Your task to perform on an android device: Go to location settings Image 0: 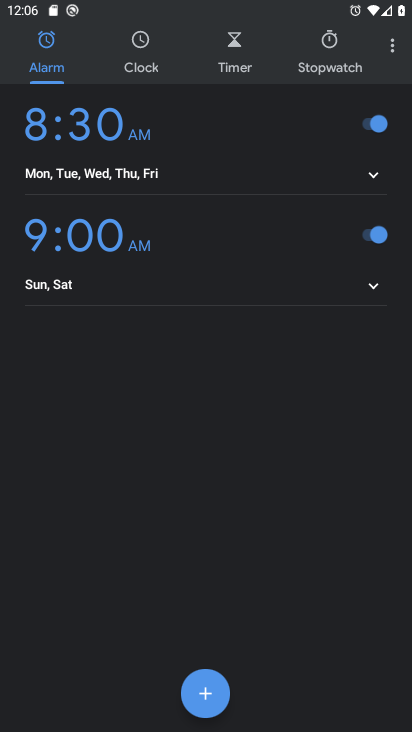
Step 0: drag from (330, 709) to (331, 324)
Your task to perform on an android device: Go to location settings Image 1: 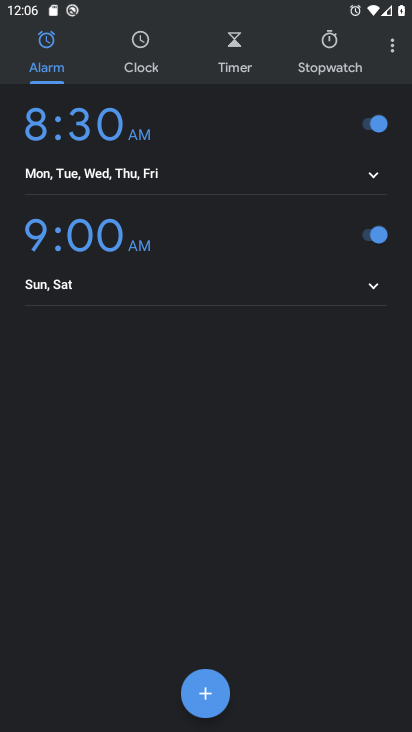
Step 1: press back button
Your task to perform on an android device: Go to location settings Image 2: 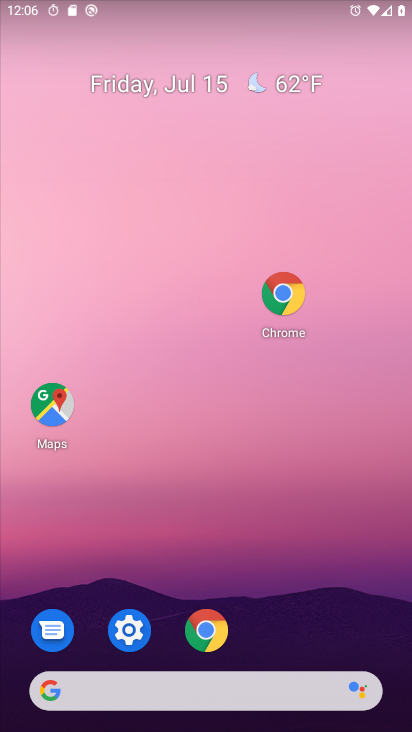
Step 2: drag from (272, 713) to (183, 156)
Your task to perform on an android device: Go to location settings Image 3: 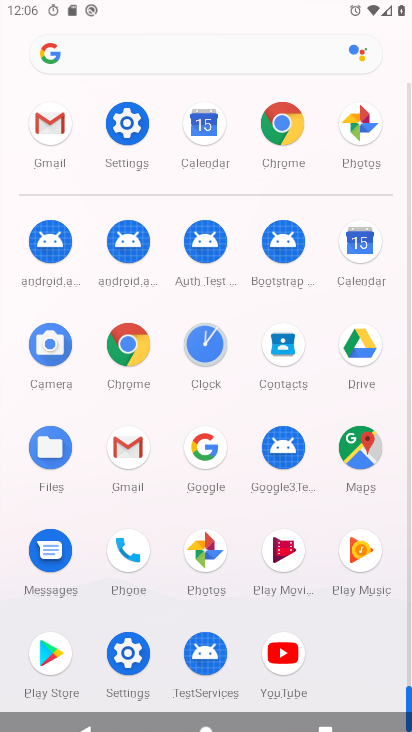
Step 3: click (127, 135)
Your task to perform on an android device: Go to location settings Image 4: 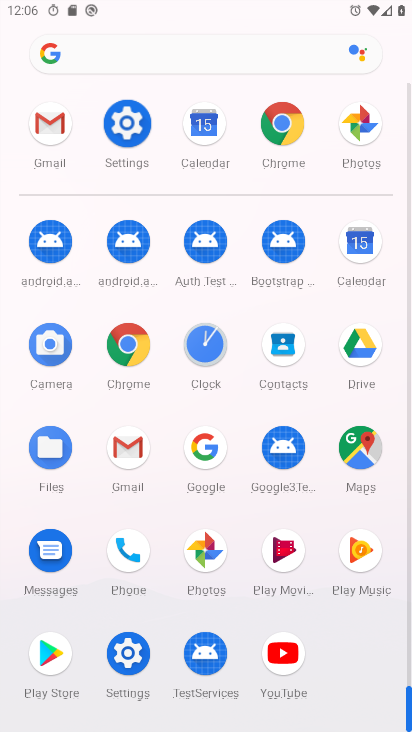
Step 4: click (125, 134)
Your task to perform on an android device: Go to location settings Image 5: 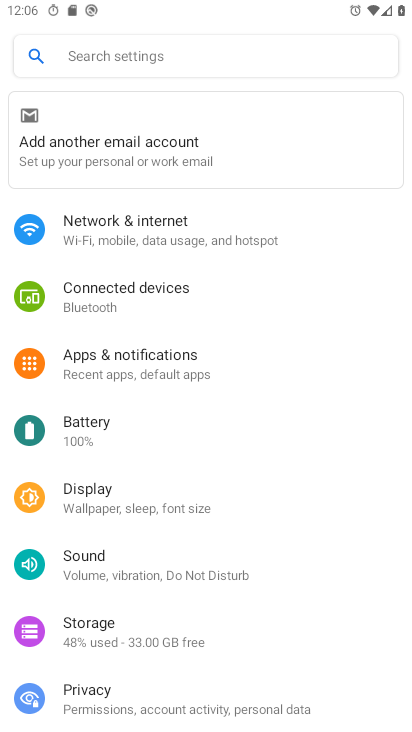
Step 5: drag from (146, 586) to (86, 242)
Your task to perform on an android device: Go to location settings Image 6: 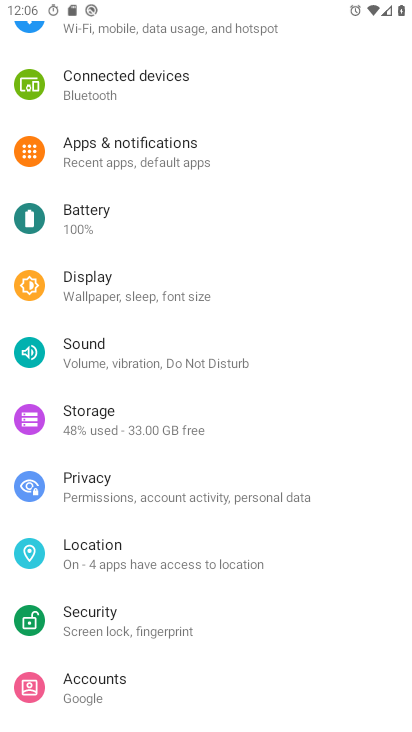
Step 6: drag from (148, 624) to (145, 237)
Your task to perform on an android device: Go to location settings Image 7: 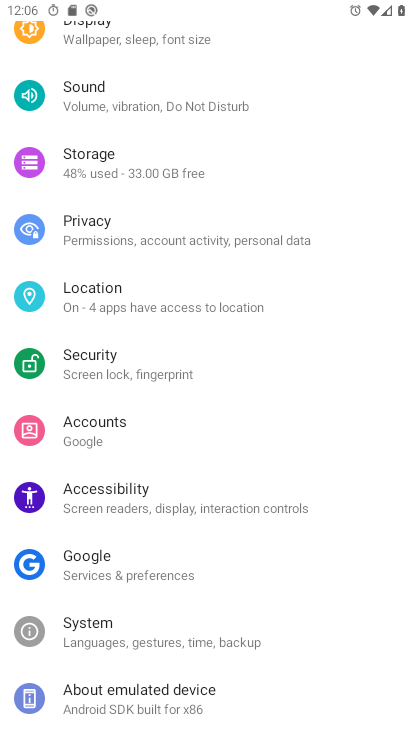
Step 7: click (124, 313)
Your task to perform on an android device: Go to location settings Image 8: 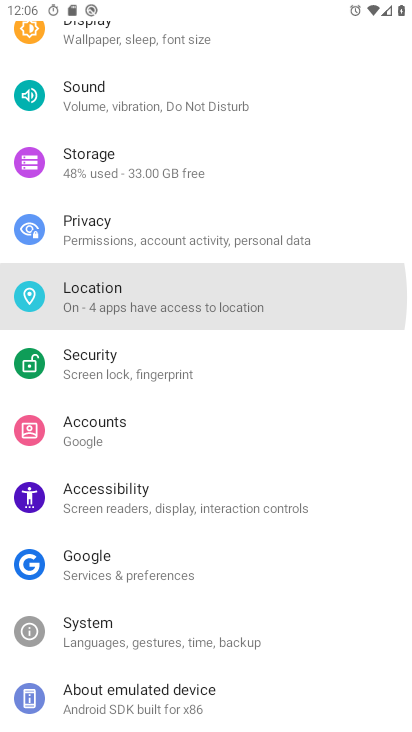
Step 8: click (118, 306)
Your task to perform on an android device: Go to location settings Image 9: 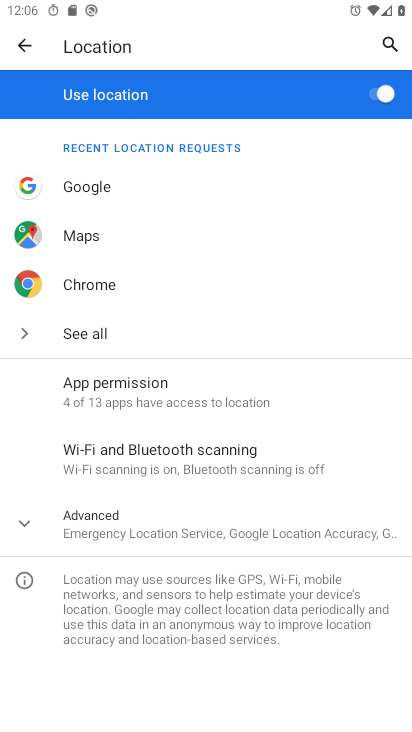
Step 9: click (93, 524)
Your task to perform on an android device: Go to location settings Image 10: 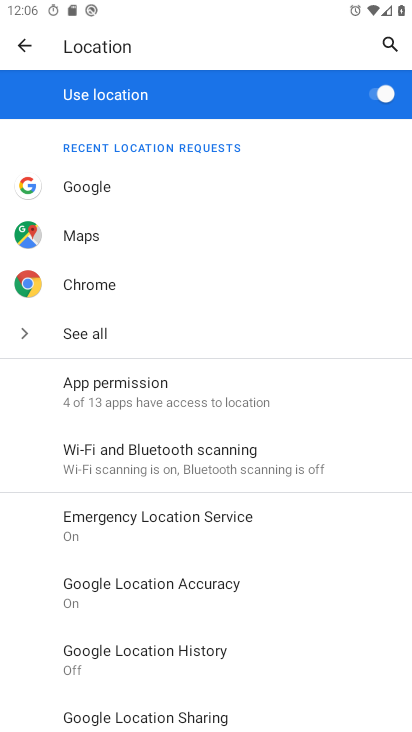
Step 10: task complete